Your task to perform on an android device: Go to Wikipedia Image 0: 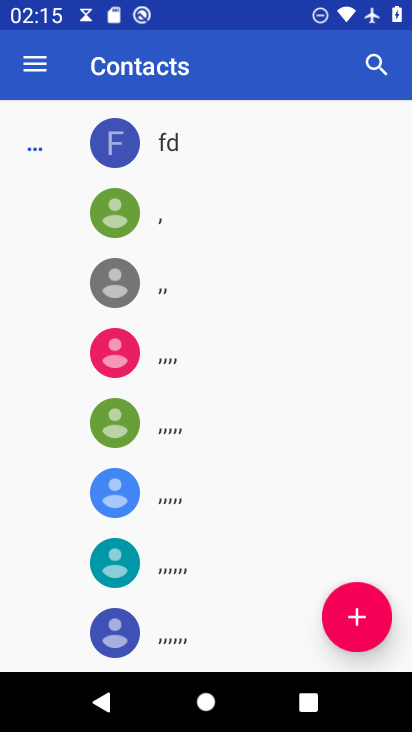
Step 0: press home button
Your task to perform on an android device: Go to Wikipedia Image 1: 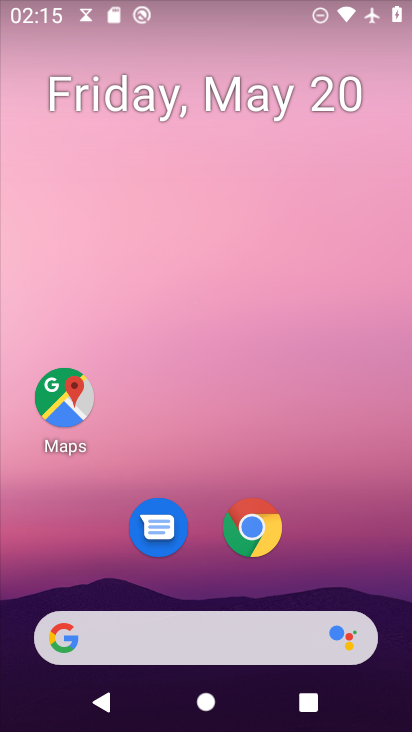
Step 1: drag from (150, 637) to (280, 173)
Your task to perform on an android device: Go to Wikipedia Image 2: 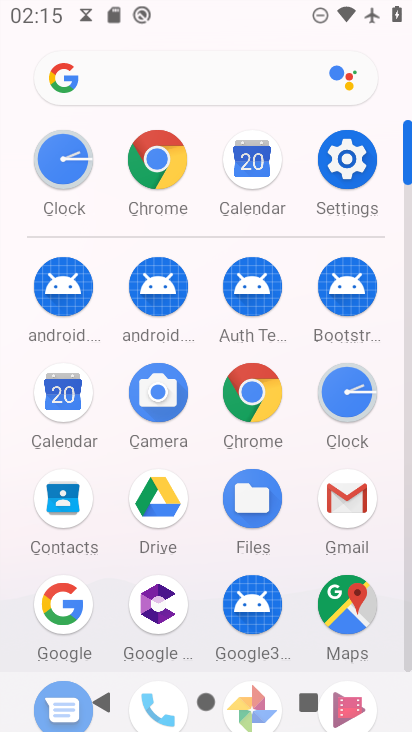
Step 2: click (160, 165)
Your task to perform on an android device: Go to Wikipedia Image 3: 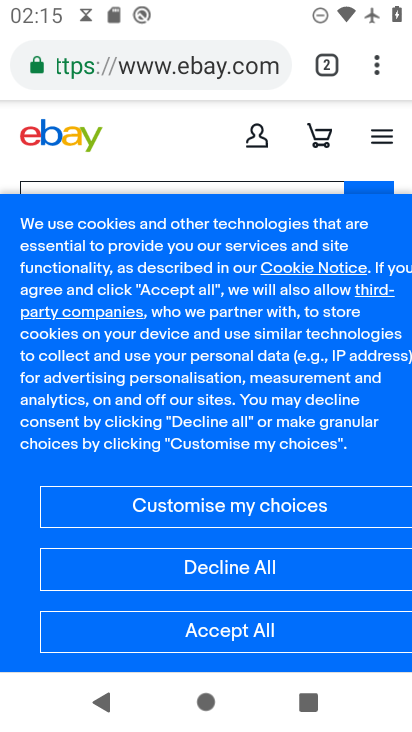
Step 3: drag from (379, 67) to (229, 125)
Your task to perform on an android device: Go to Wikipedia Image 4: 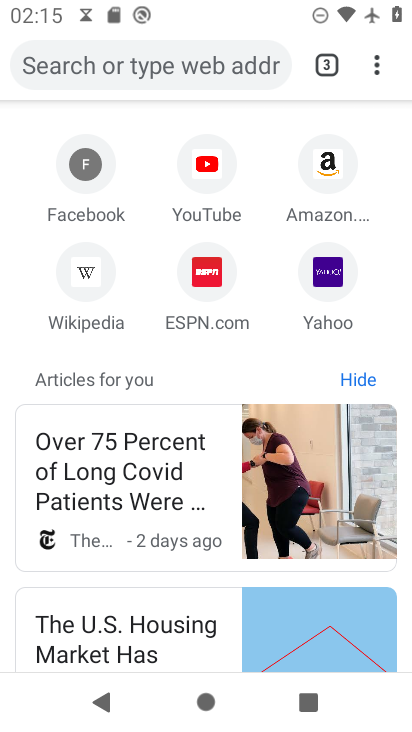
Step 4: click (85, 277)
Your task to perform on an android device: Go to Wikipedia Image 5: 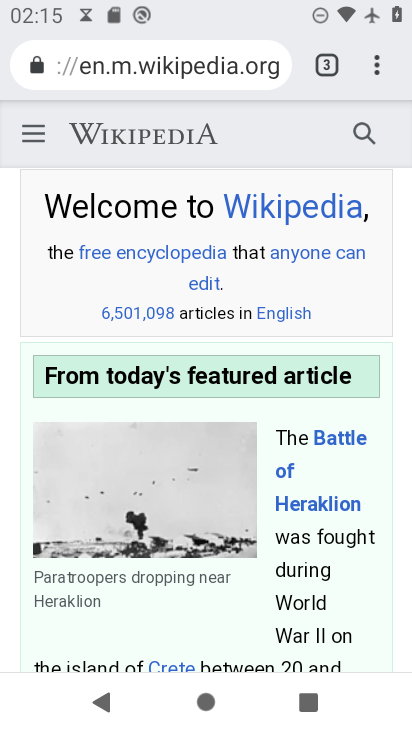
Step 5: task complete